Your task to perform on an android device: move an email to a new category in the gmail app Image 0: 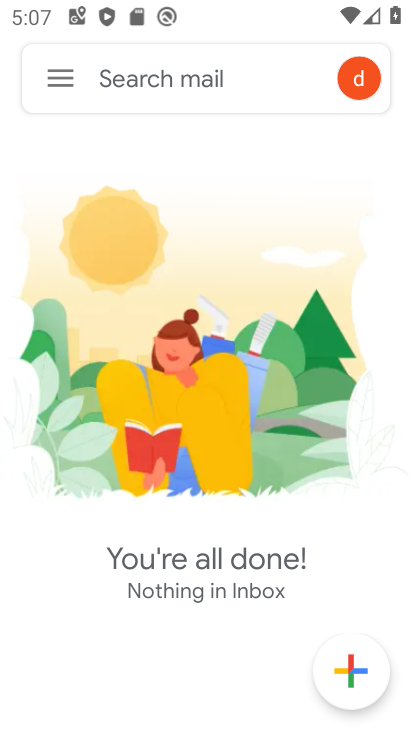
Step 0: press back button
Your task to perform on an android device: move an email to a new category in the gmail app Image 1: 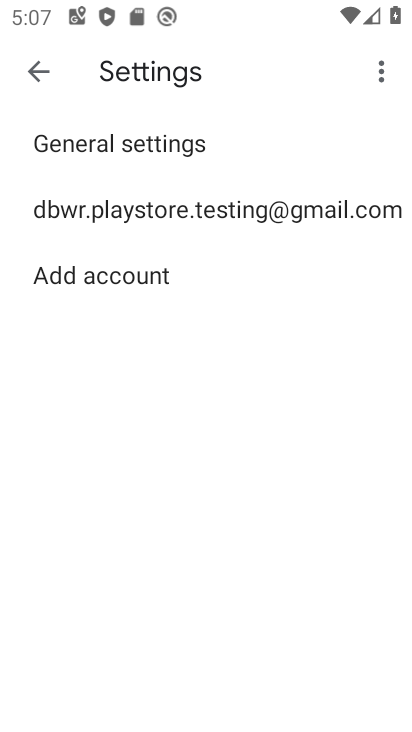
Step 1: press back button
Your task to perform on an android device: move an email to a new category in the gmail app Image 2: 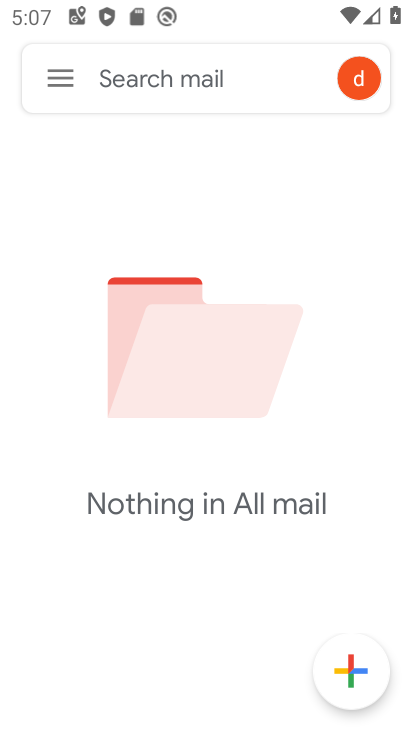
Step 2: press back button
Your task to perform on an android device: move an email to a new category in the gmail app Image 3: 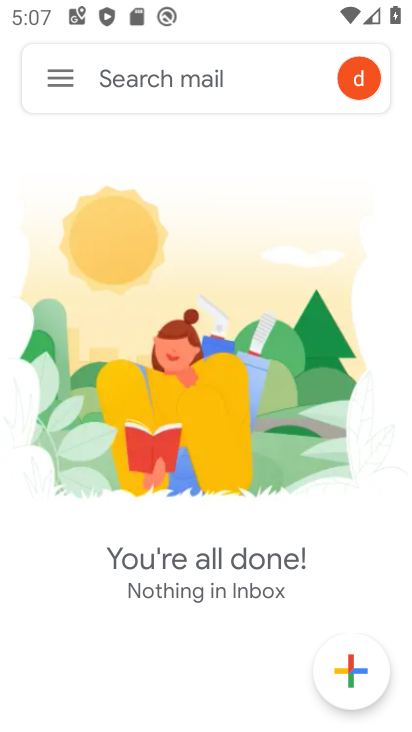
Step 3: click (42, 81)
Your task to perform on an android device: move an email to a new category in the gmail app Image 4: 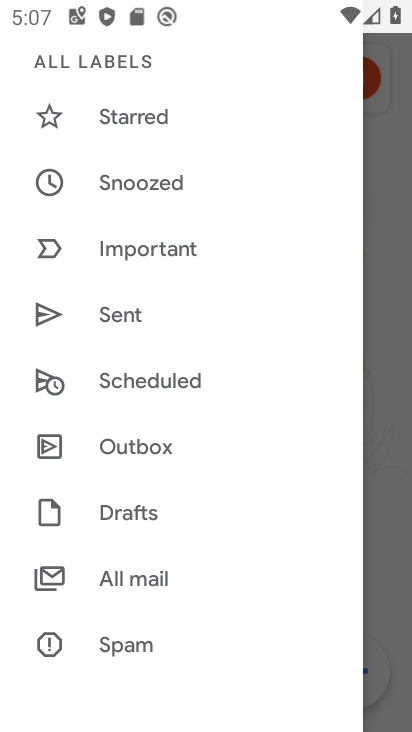
Step 4: click (62, 84)
Your task to perform on an android device: move an email to a new category in the gmail app Image 5: 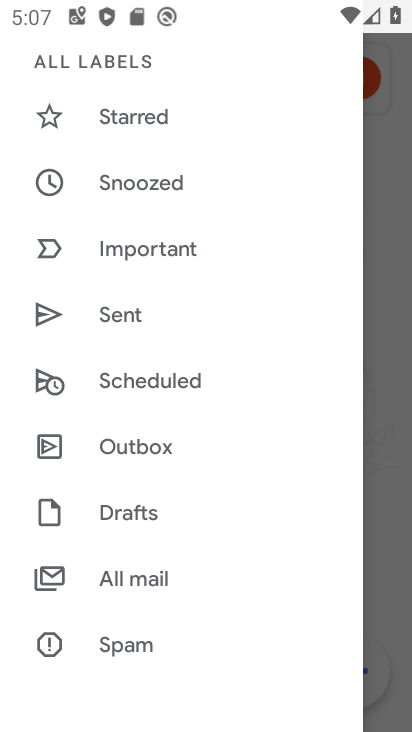
Step 5: click (148, 579)
Your task to perform on an android device: move an email to a new category in the gmail app Image 6: 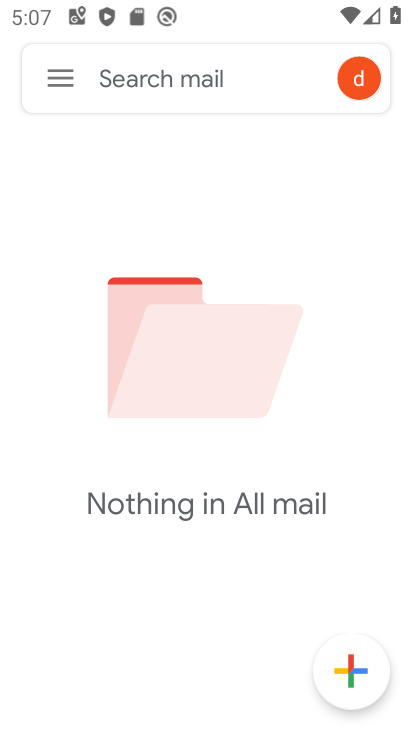
Step 6: task complete